Your task to perform on an android device: Search for vegetarian restaurants on Maps Image 0: 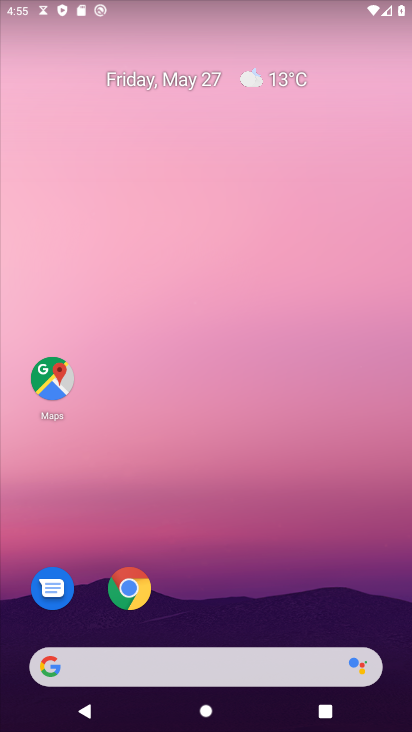
Step 0: click (42, 370)
Your task to perform on an android device: Search for vegetarian restaurants on Maps Image 1: 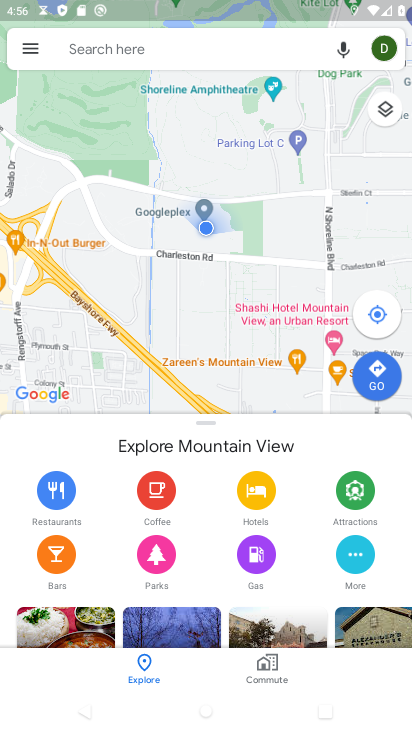
Step 1: click (156, 55)
Your task to perform on an android device: Search for vegetarian restaurants on Maps Image 2: 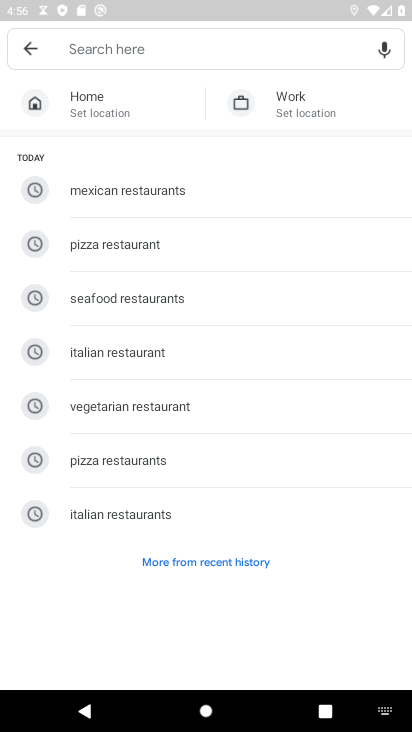
Step 2: click (137, 404)
Your task to perform on an android device: Search for vegetarian restaurants on Maps Image 3: 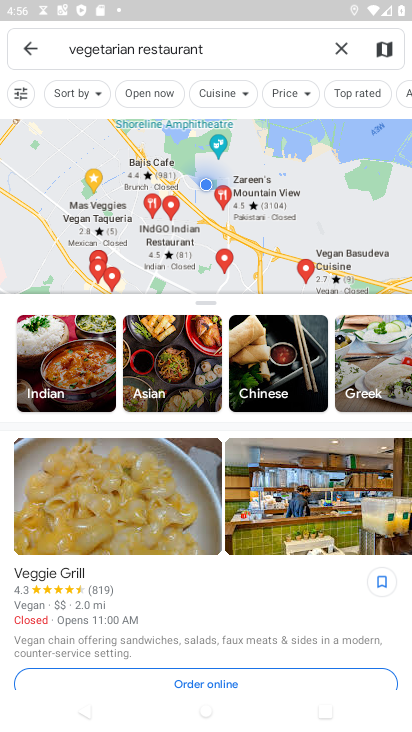
Step 3: task complete